Your task to perform on an android device: What's the weather going to be this weekend? Image 0: 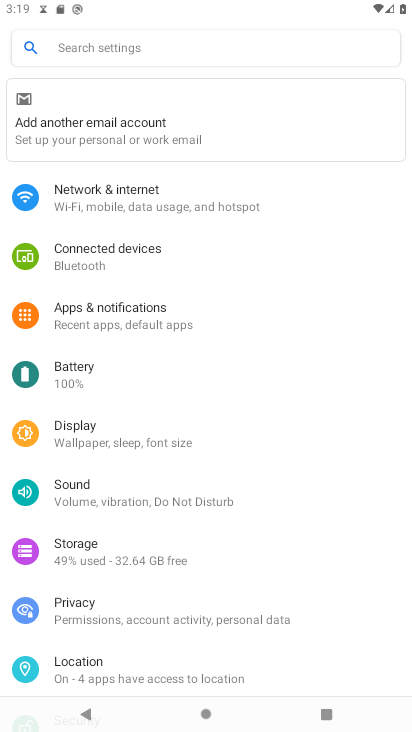
Step 0: press home button
Your task to perform on an android device: What's the weather going to be this weekend? Image 1: 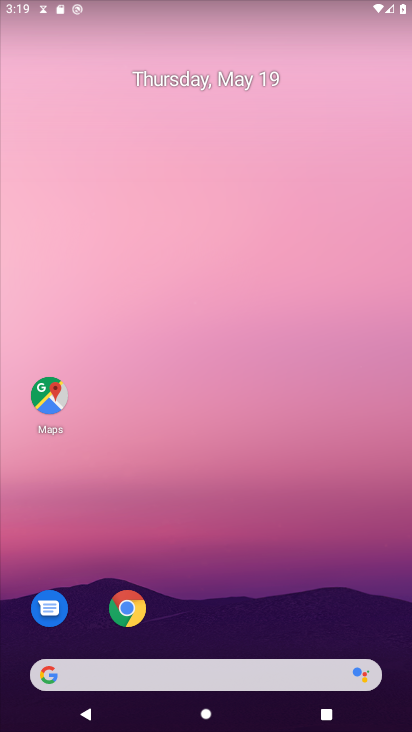
Step 1: drag from (209, 641) to (197, 157)
Your task to perform on an android device: What's the weather going to be this weekend? Image 2: 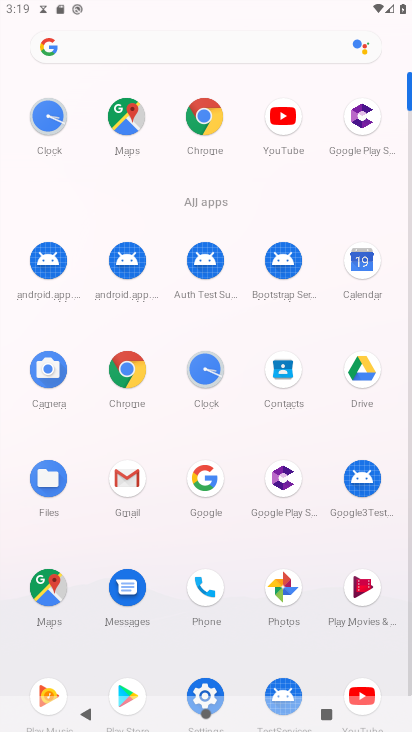
Step 2: click (210, 478)
Your task to perform on an android device: What's the weather going to be this weekend? Image 3: 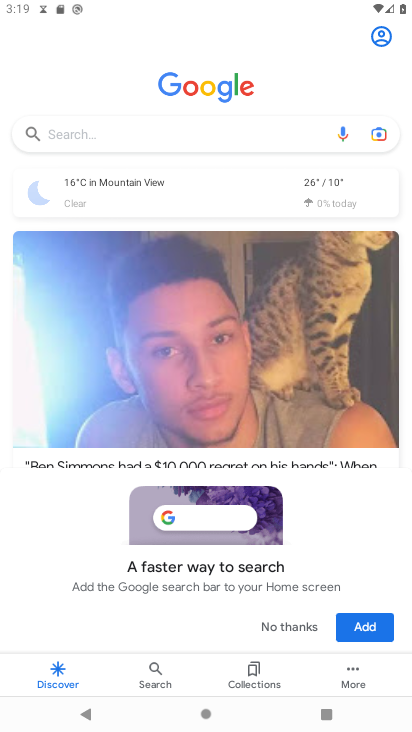
Step 3: click (137, 187)
Your task to perform on an android device: What's the weather going to be this weekend? Image 4: 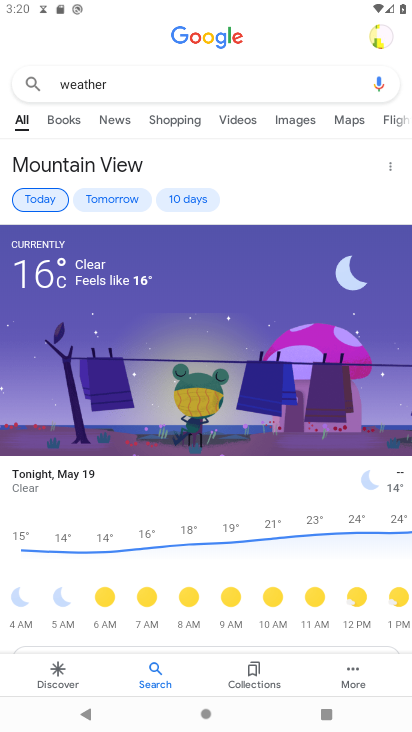
Step 4: click (200, 203)
Your task to perform on an android device: What's the weather going to be this weekend? Image 5: 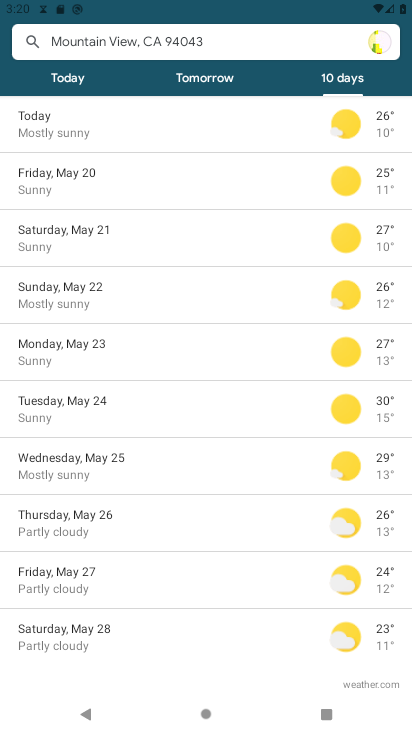
Step 5: task complete